Your task to perform on an android device: turn notification dots off Image 0: 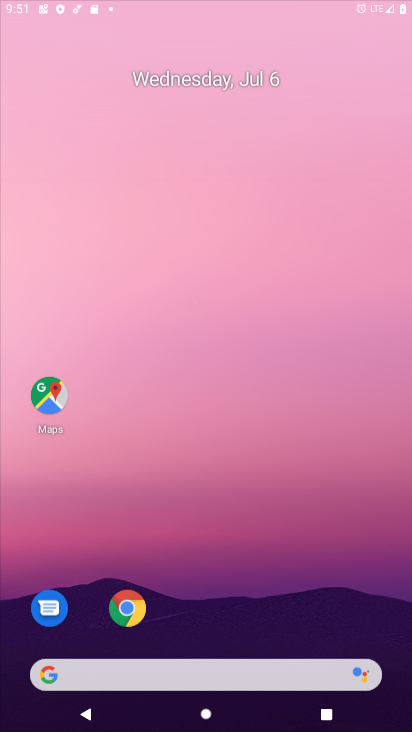
Step 0: click (296, 35)
Your task to perform on an android device: turn notification dots off Image 1: 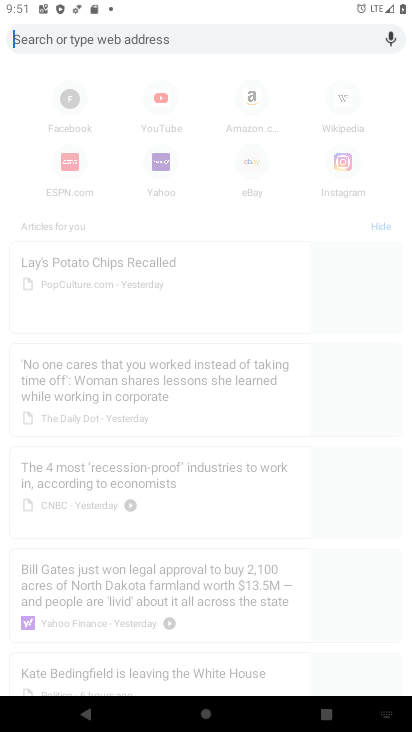
Step 1: press home button
Your task to perform on an android device: turn notification dots off Image 2: 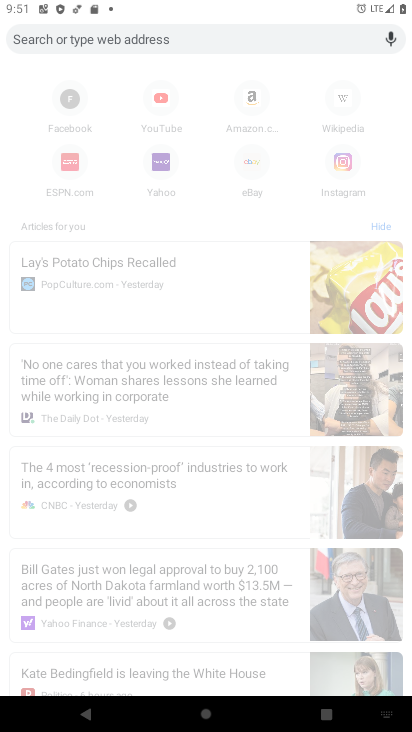
Step 2: drag from (386, 623) to (244, 4)
Your task to perform on an android device: turn notification dots off Image 3: 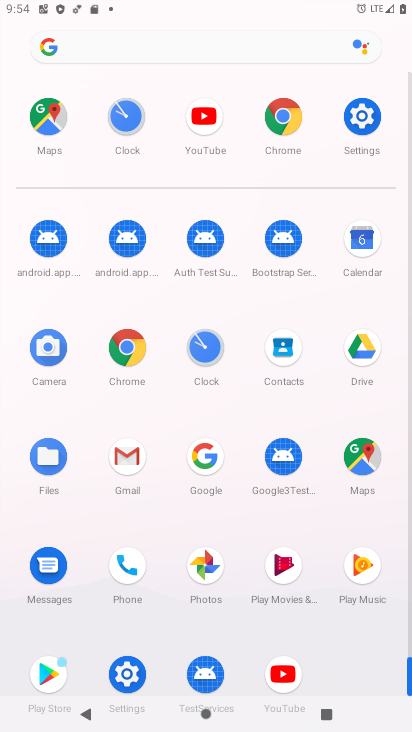
Step 3: click (362, 119)
Your task to perform on an android device: turn notification dots off Image 4: 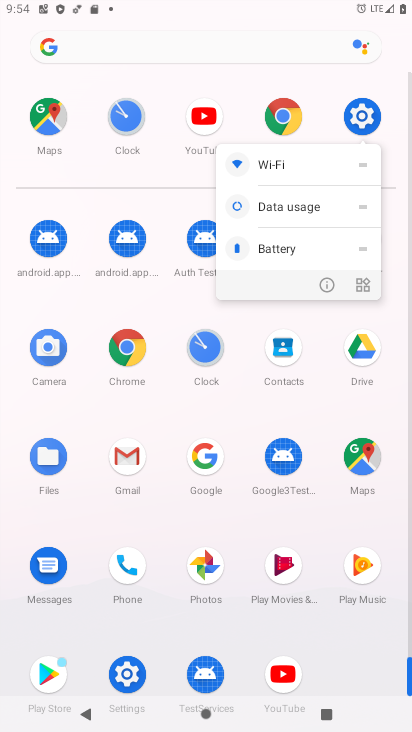
Step 4: click (363, 119)
Your task to perform on an android device: turn notification dots off Image 5: 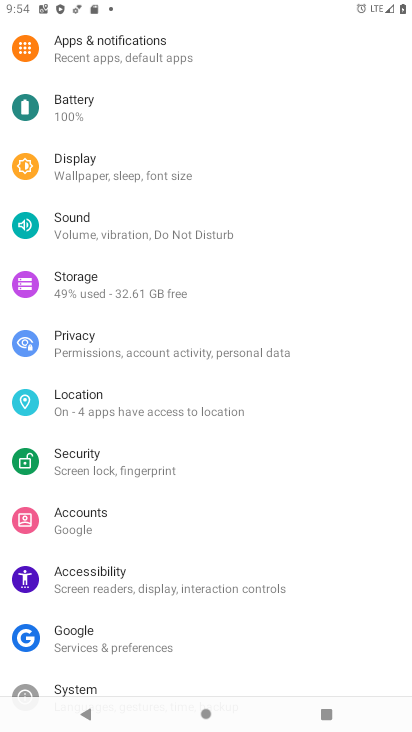
Step 5: click (110, 37)
Your task to perform on an android device: turn notification dots off Image 6: 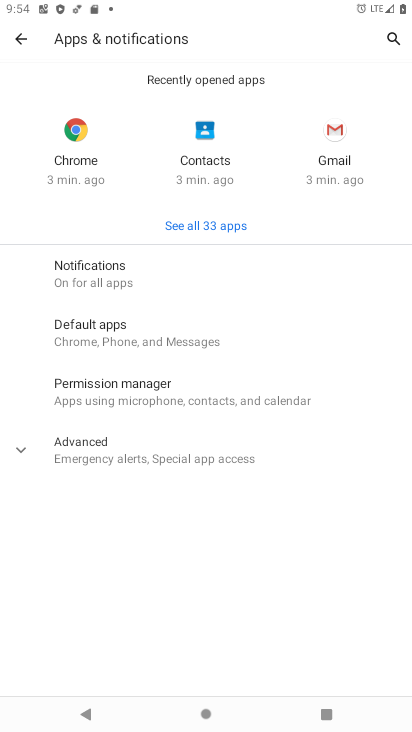
Step 6: click (149, 282)
Your task to perform on an android device: turn notification dots off Image 7: 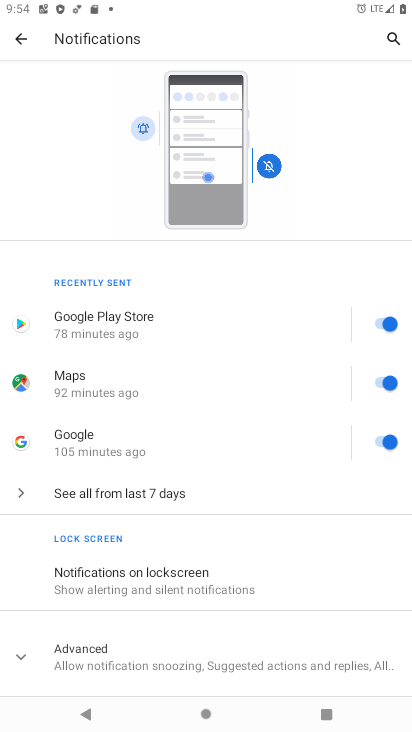
Step 7: drag from (80, 606) to (57, 172)
Your task to perform on an android device: turn notification dots off Image 8: 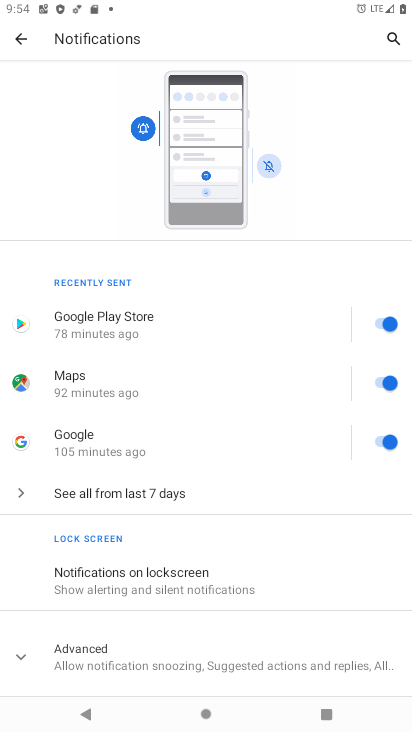
Step 8: click (78, 651)
Your task to perform on an android device: turn notification dots off Image 9: 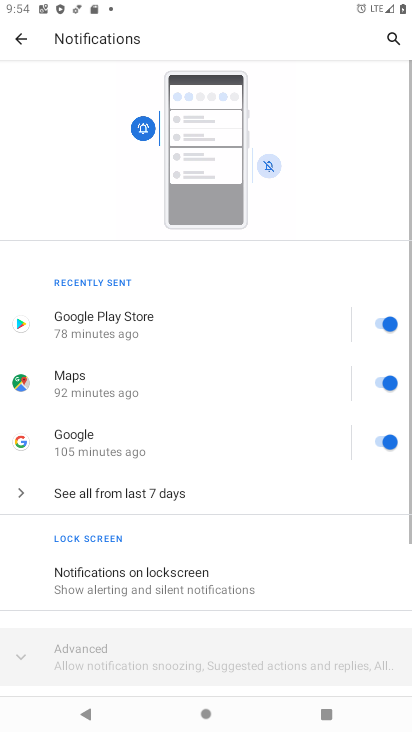
Step 9: drag from (79, 641) to (76, 200)
Your task to perform on an android device: turn notification dots off Image 10: 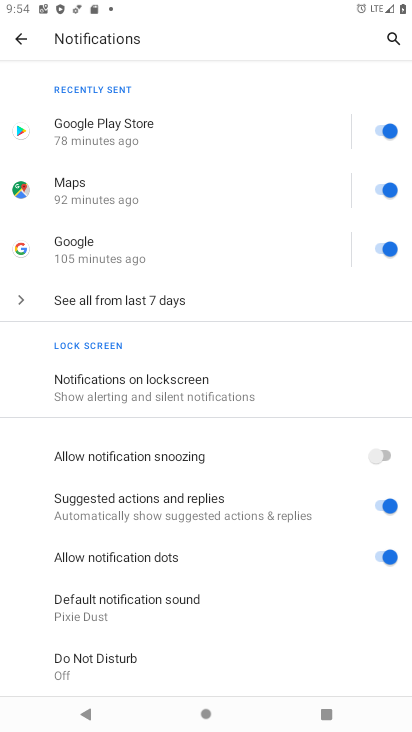
Step 10: click (147, 569)
Your task to perform on an android device: turn notification dots off Image 11: 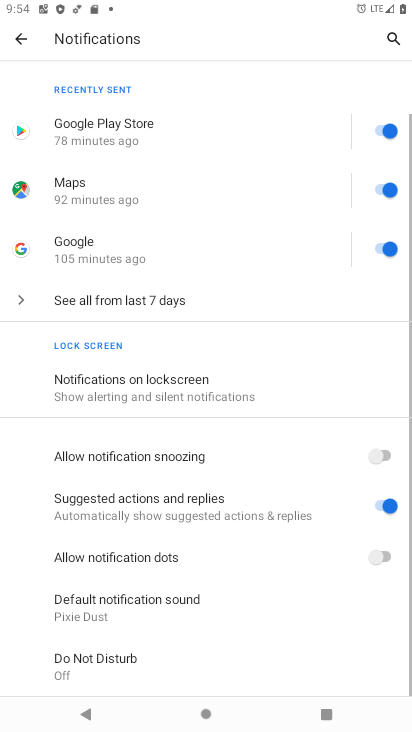
Step 11: task complete